Your task to perform on an android device: Open Chrome and go to the settings page Image 0: 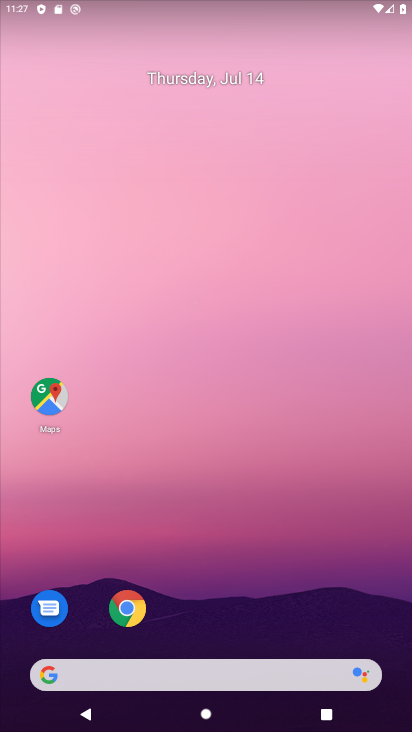
Step 0: click (118, 608)
Your task to perform on an android device: Open Chrome and go to the settings page Image 1: 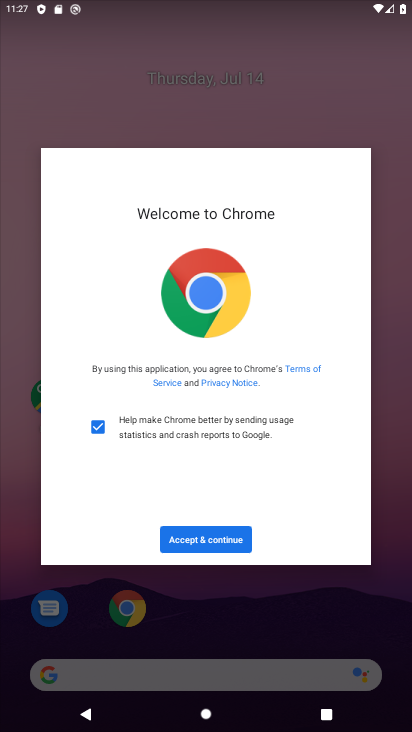
Step 1: click (187, 541)
Your task to perform on an android device: Open Chrome and go to the settings page Image 2: 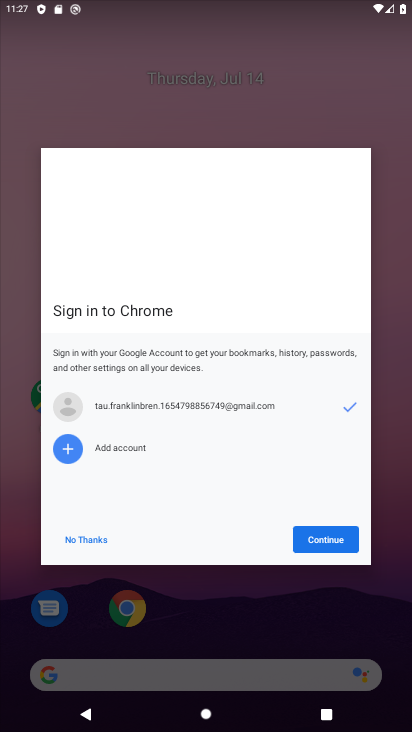
Step 2: click (325, 543)
Your task to perform on an android device: Open Chrome and go to the settings page Image 3: 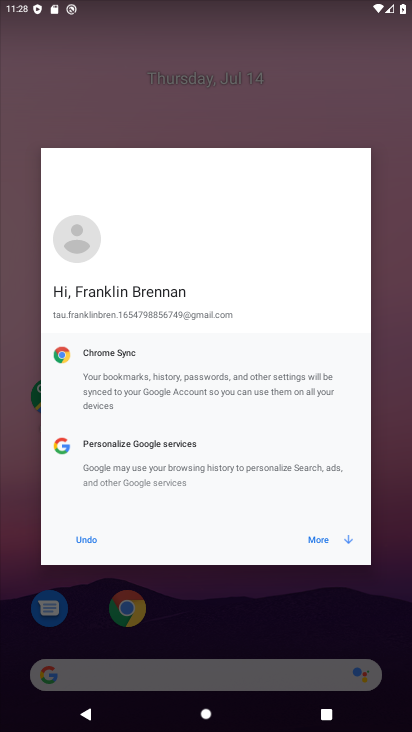
Step 3: click (308, 539)
Your task to perform on an android device: Open Chrome and go to the settings page Image 4: 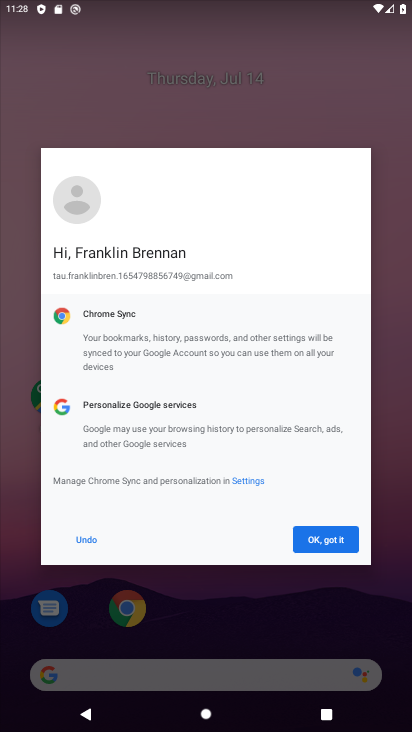
Step 4: click (337, 545)
Your task to perform on an android device: Open Chrome and go to the settings page Image 5: 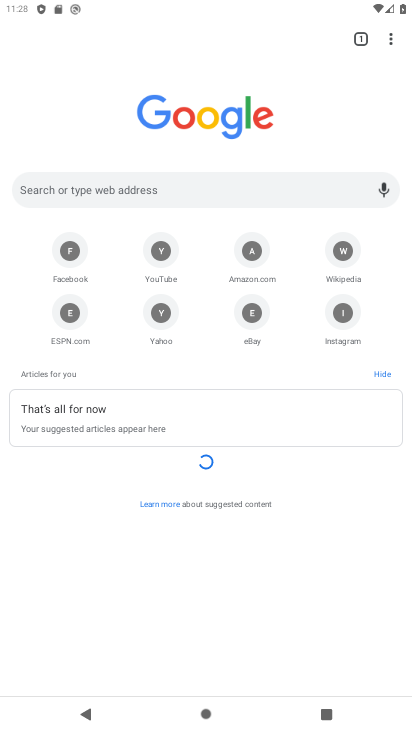
Step 5: click (392, 36)
Your task to perform on an android device: Open Chrome and go to the settings page Image 6: 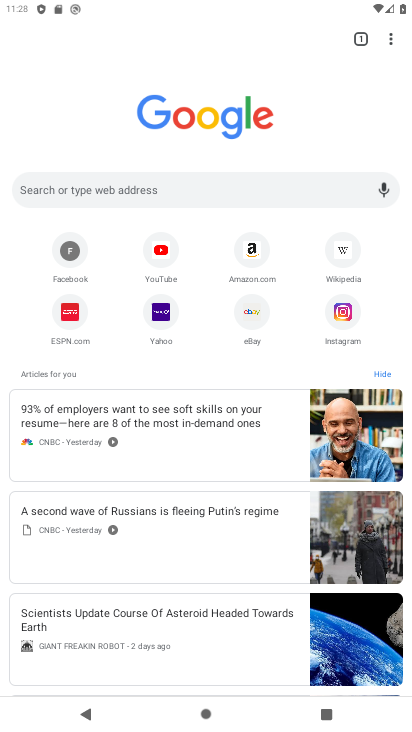
Step 6: click (389, 36)
Your task to perform on an android device: Open Chrome and go to the settings page Image 7: 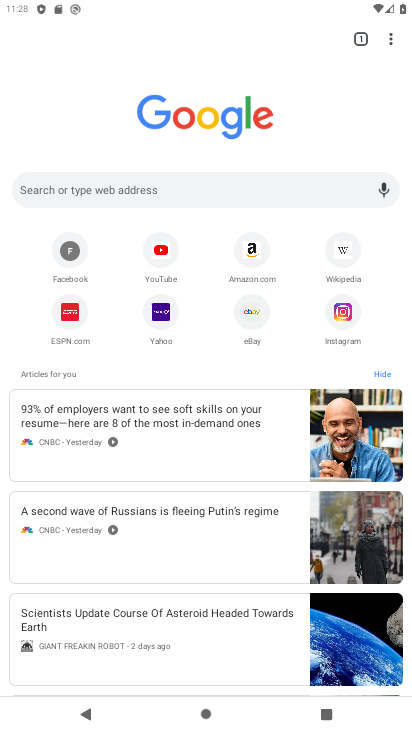
Step 7: task complete